Your task to perform on an android device: turn on priority inbox in the gmail app Image 0: 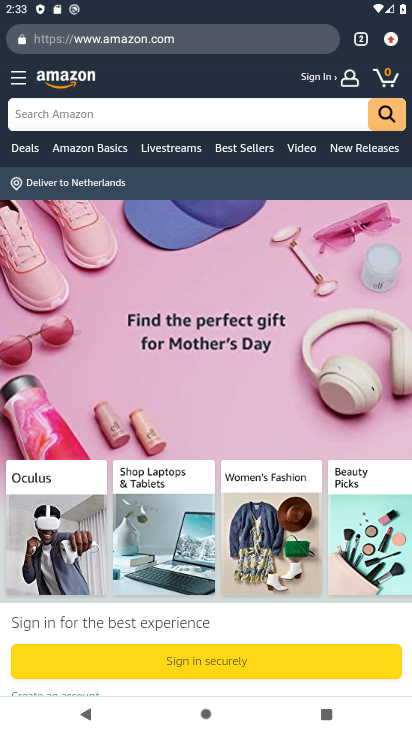
Step 0: press home button
Your task to perform on an android device: turn on priority inbox in the gmail app Image 1: 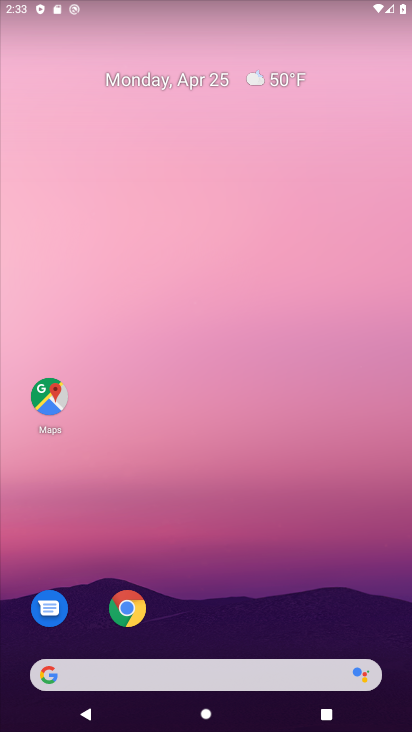
Step 1: drag from (225, 631) to (239, 192)
Your task to perform on an android device: turn on priority inbox in the gmail app Image 2: 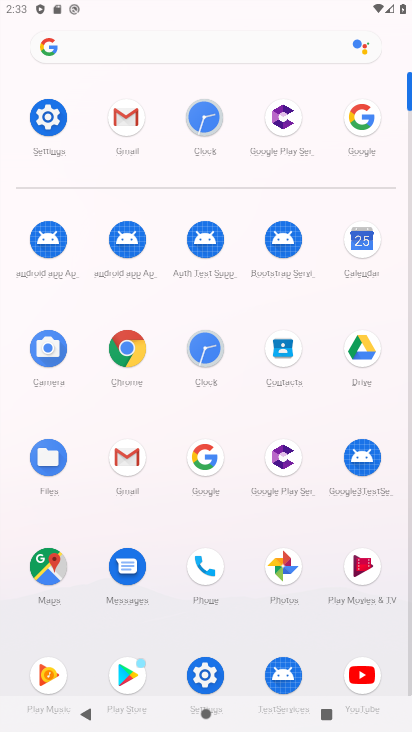
Step 2: click (127, 459)
Your task to perform on an android device: turn on priority inbox in the gmail app Image 3: 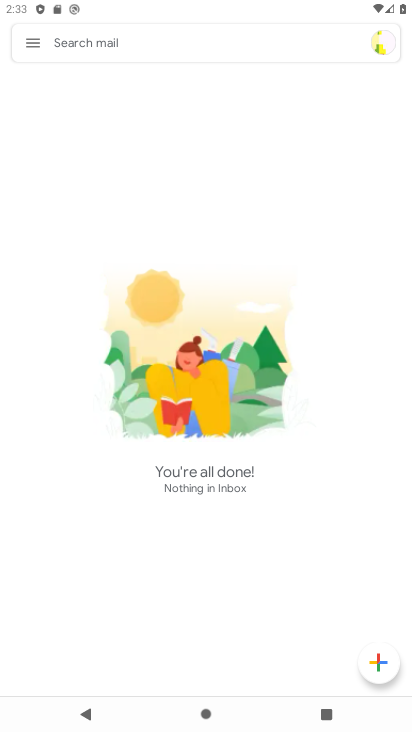
Step 3: click (33, 42)
Your task to perform on an android device: turn on priority inbox in the gmail app Image 4: 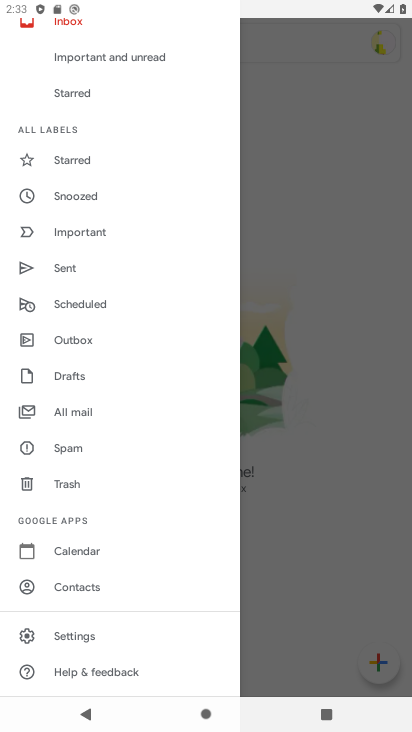
Step 4: click (88, 632)
Your task to perform on an android device: turn on priority inbox in the gmail app Image 5: 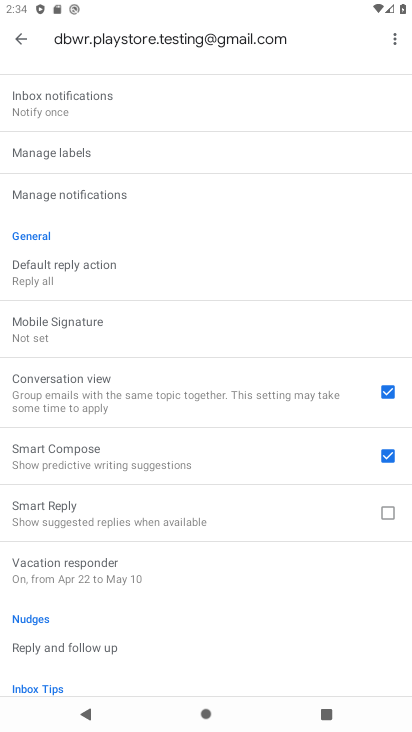
Step 5: drag from (201, 609) to (180, 575)
Your task to perform on an android device: turn on priority inbox in the gmail app Image 6: 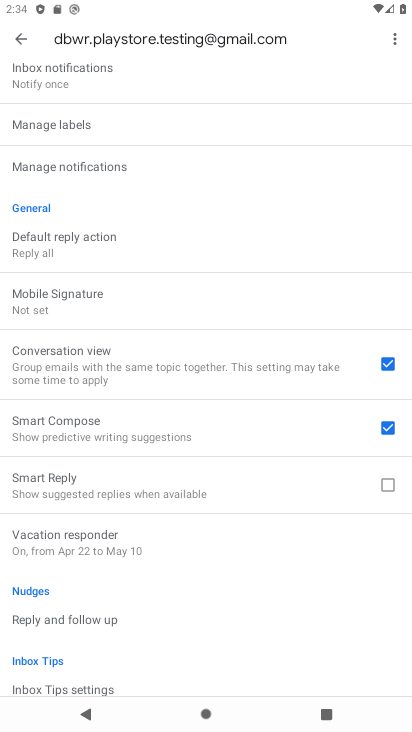
Step 6: drag from (140, 168) to (147, 398)
Your task to perform on an android device: turn on priority inbox in the gmail app Image 7: 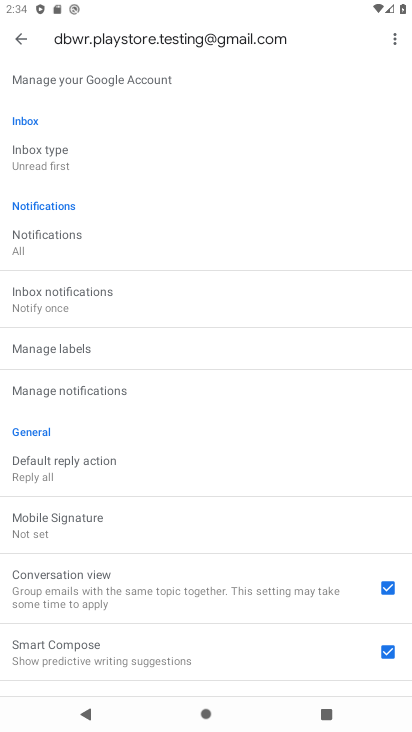
Step 7: click (85, 161)
Your task to perform on an android device: turn on priority inbox in the gmail app Image 8: 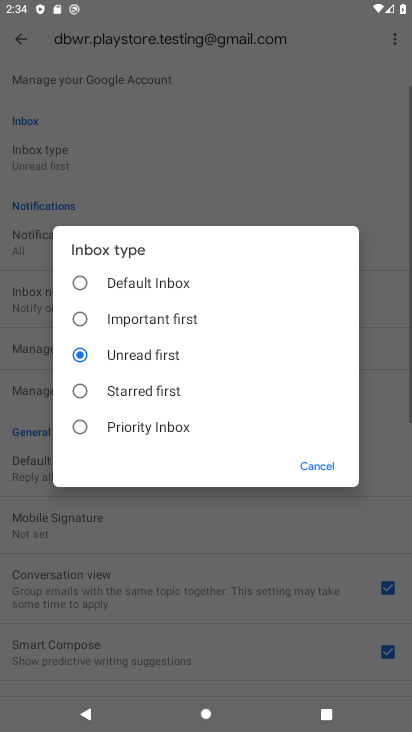
Step 8: click (117, 287)
Your task to perform on an android device: turn on priority inbox in the gmail app Image 9: 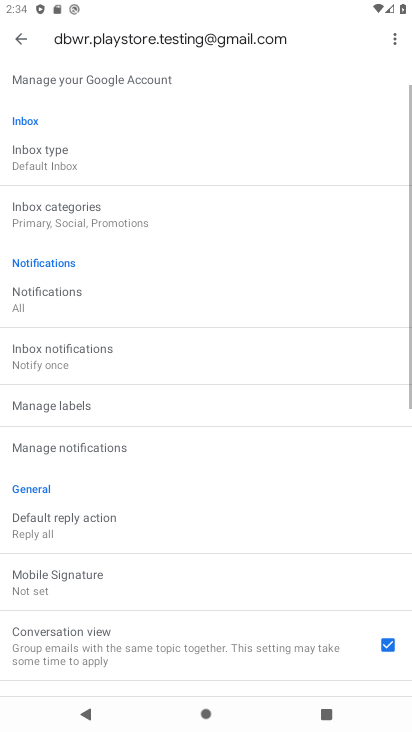
Step 9: click (85, 229)
Your task to perform on an android device: turn on priority inbox in the gmail app Image 10: 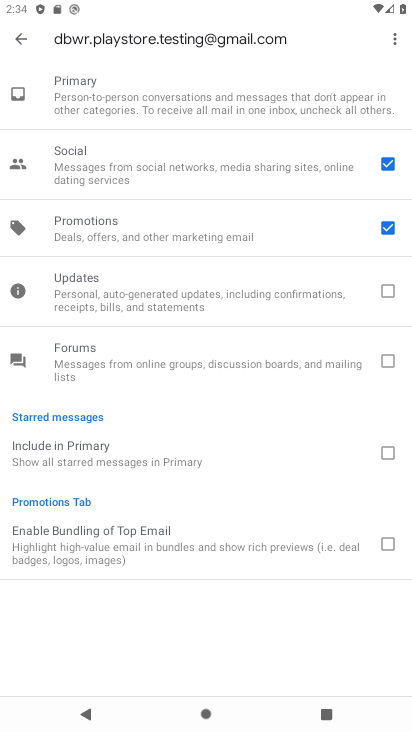
Step 10: click (24, 28)
Your task to perform on an android device: turn on priority inbox in the gmail app Image 11: 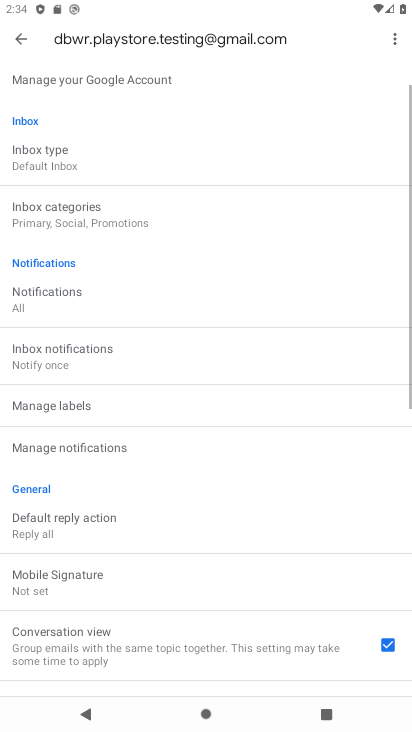
Step 11: click (102, 171)
Your task to perform on an android device: turn on priority inbox in the gmail app Image 12: 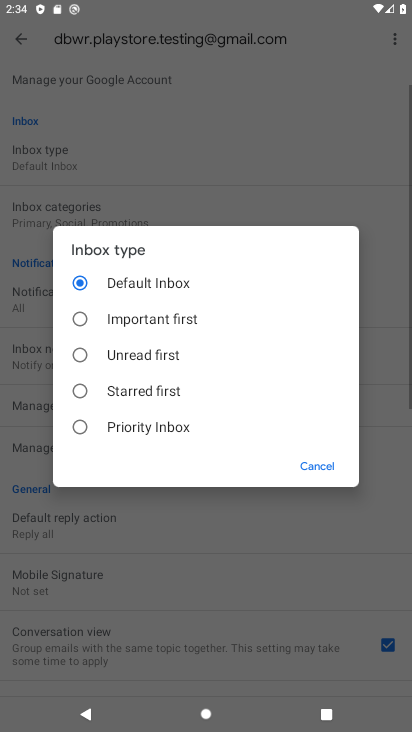
Step 12: click (122, 423)
Your task to perform on an android device: turn on priority inbox in the gmail app Image 13: 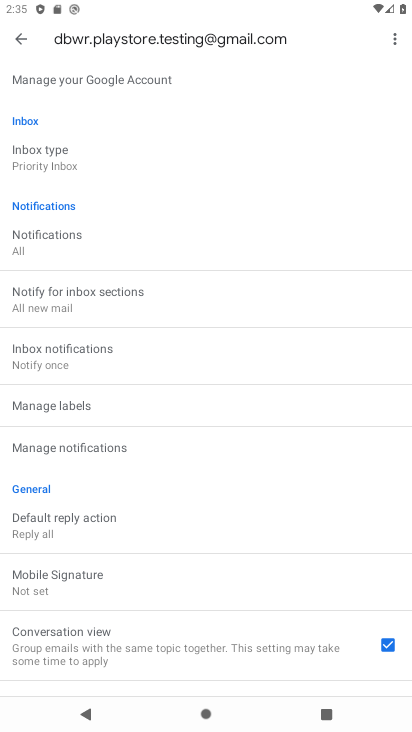
Step 13: task complete